Your task to perform on an android device: Search for "dell alienware" on costco.com, select the first entry, and add it to the cart. Image 0: 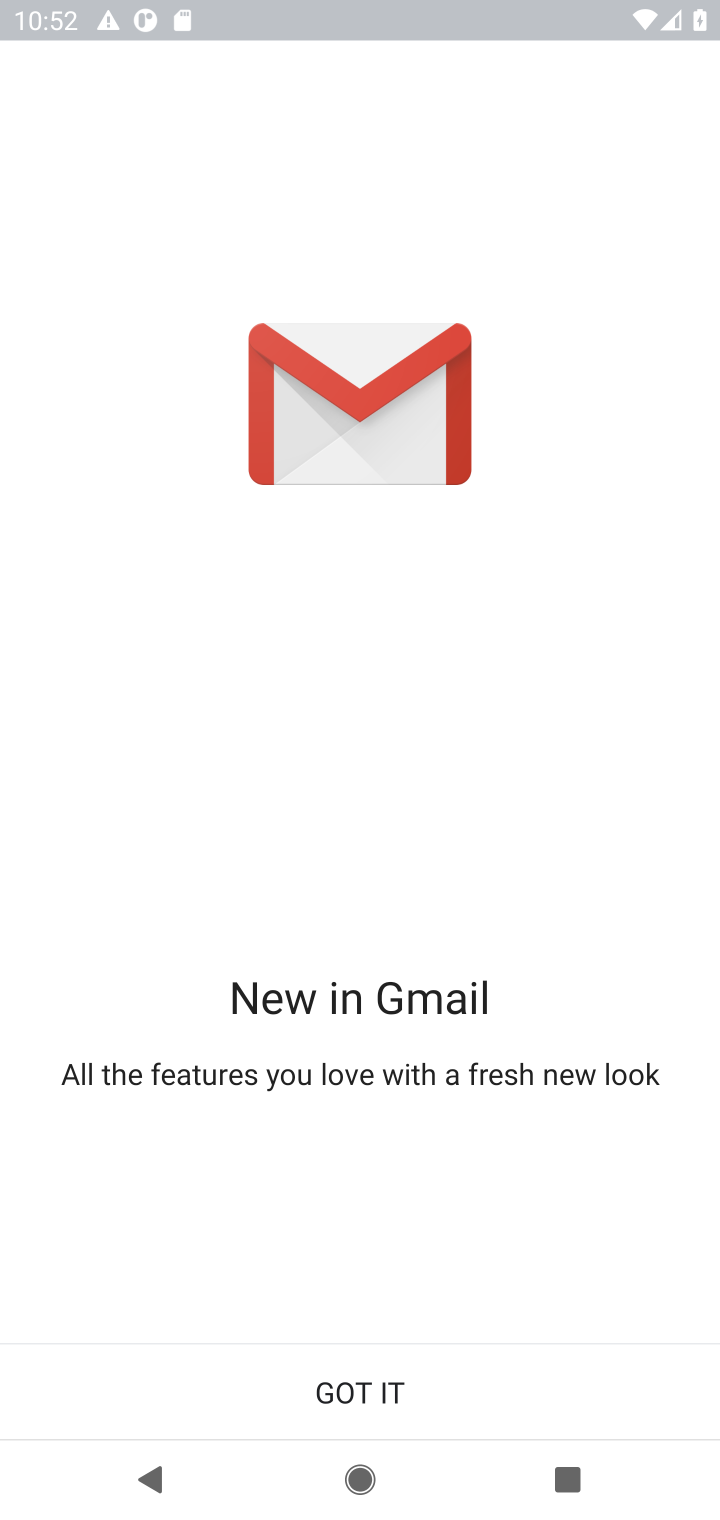
Step 0: press home button
Your task to perform on an android device: Search for "dell alienware" on costco.com, select the first entry, and add it to the cart. Image 1: 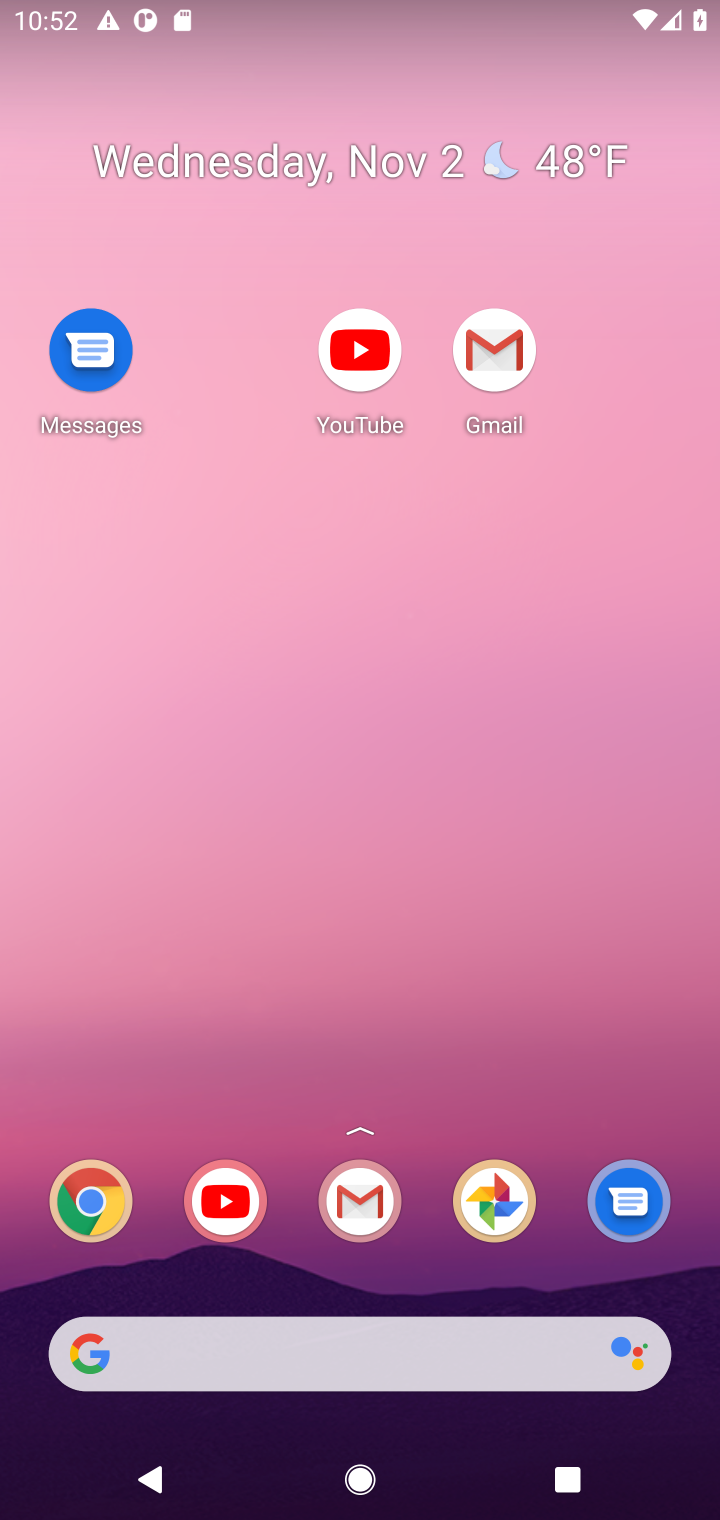
Step 1: drag from (293, 1018) to (317, 344)
Your task to perform on an android device: Search for "dell alienware" on costco.com, select the first entry, and add it to the cart. Image 2: 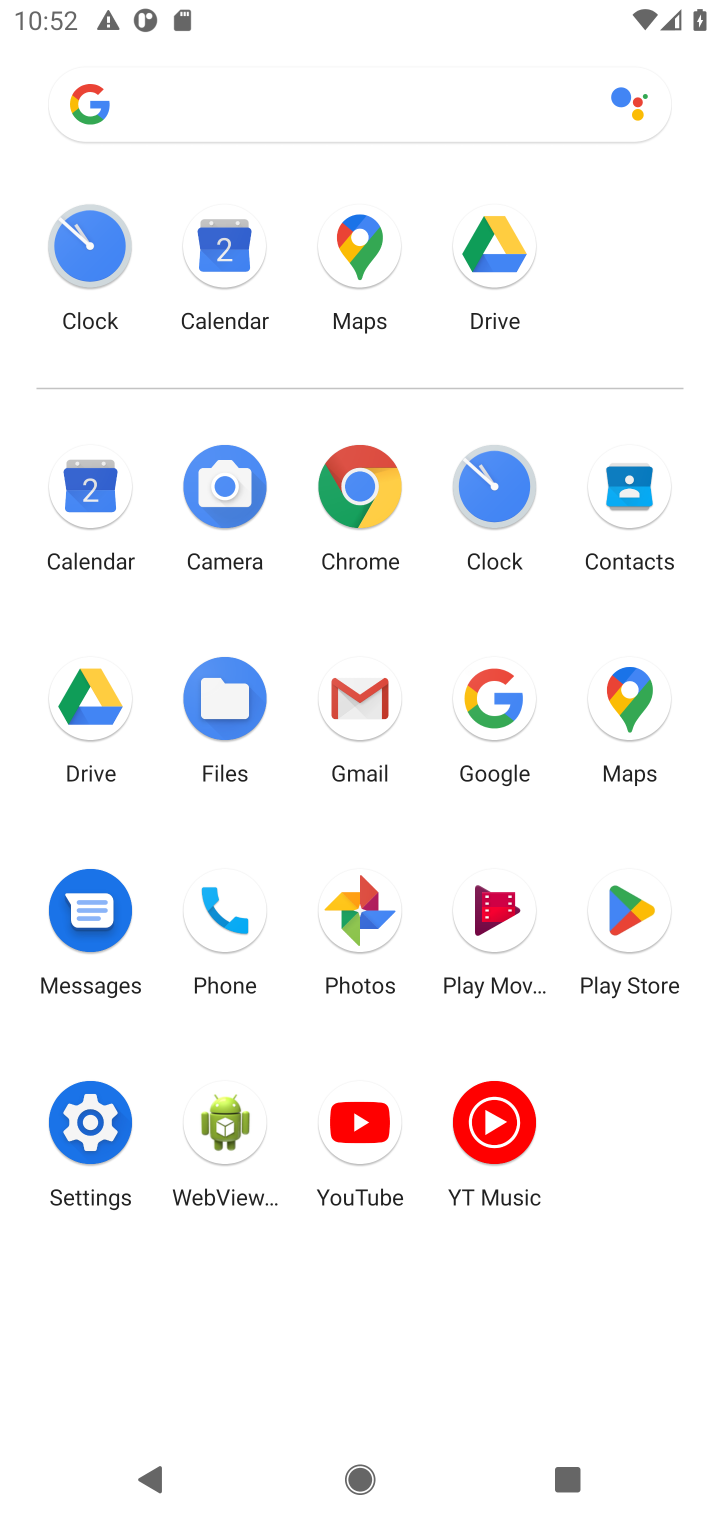
Step 2: click (348, 488)
Your task to perform on an android device: Search for "dell alienware" on costco.com, select the first entry, and add it to the cart. Image 3: 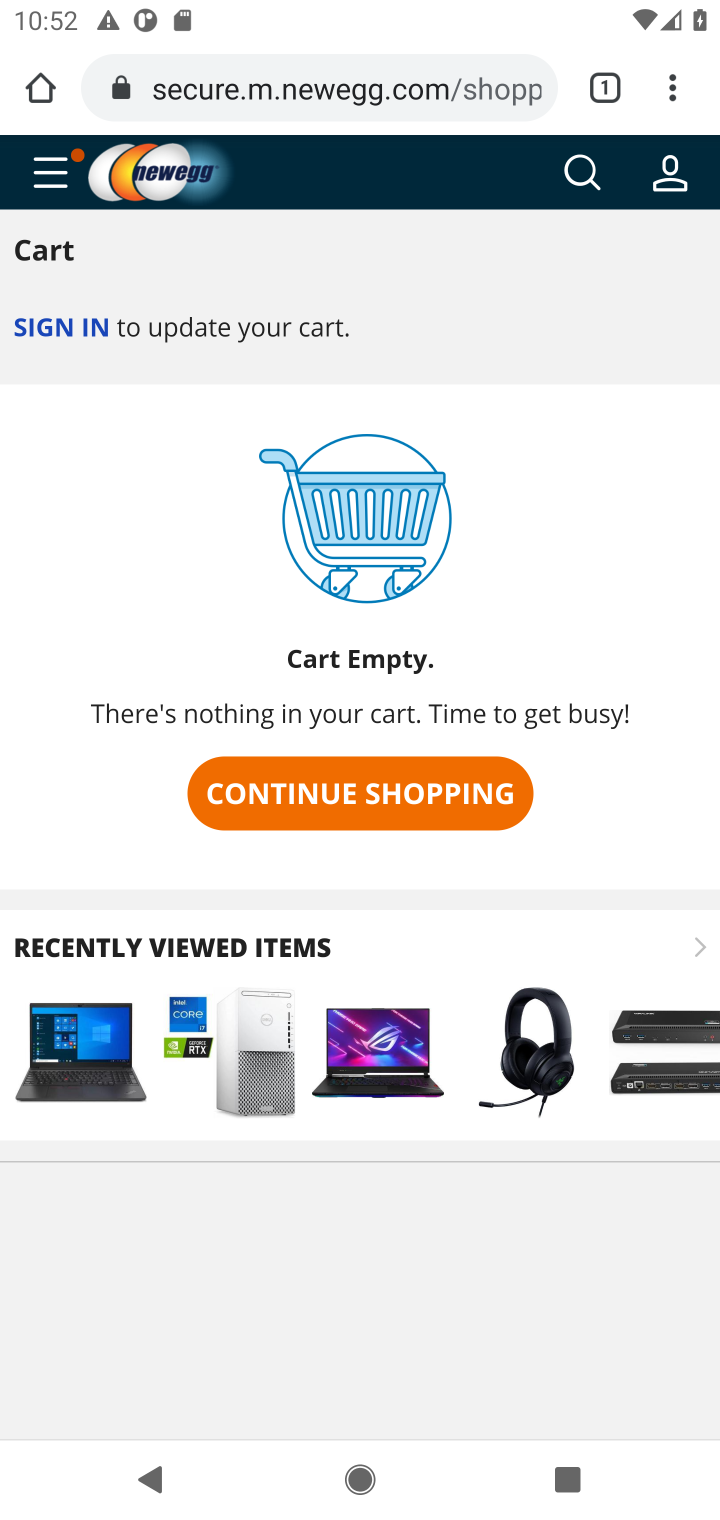
Step 3: click (384, 80)
Your task to perform on an android device: Search for "dell alienware" on costco.com, select the first entry, and add it to the cart. Image 4: 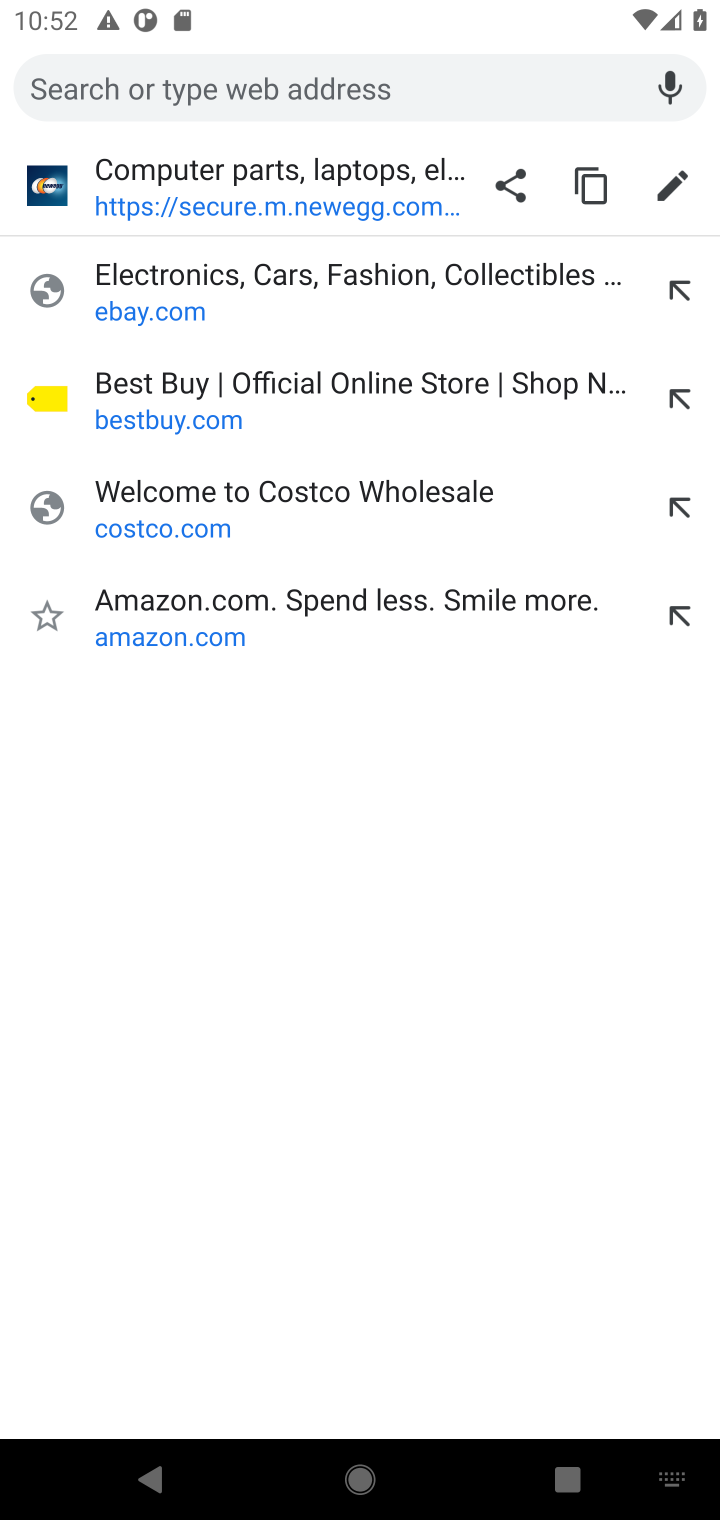
Step 4: type "costco.com"
Your task to perform on an android device: Search for "dell alienware" on costco.com, select the first entry, and add it to the cart. Image 5: 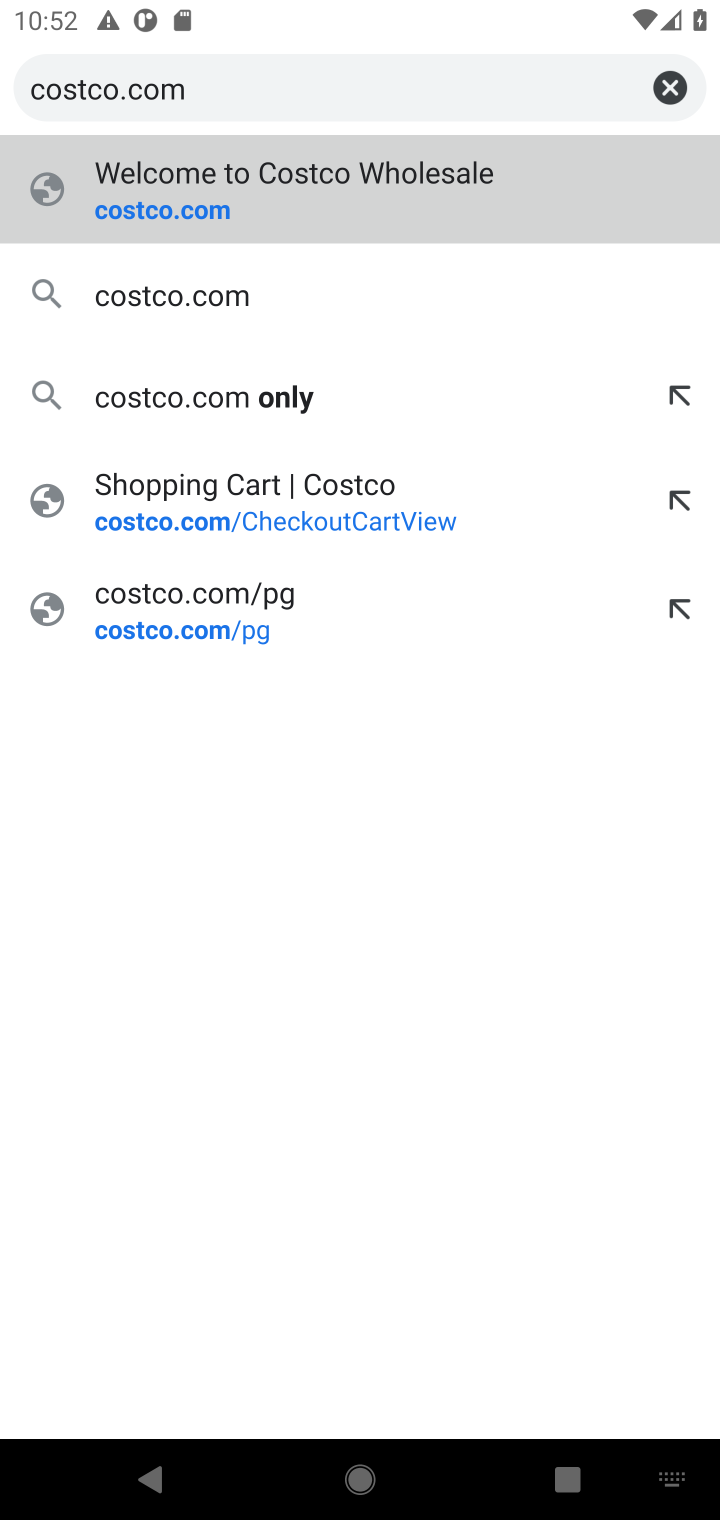
Step 5: press enter
Your task to perform on an android device: Search for "dell alienware" on costco.com, select the first entry, and add it to the cart. Image 6: 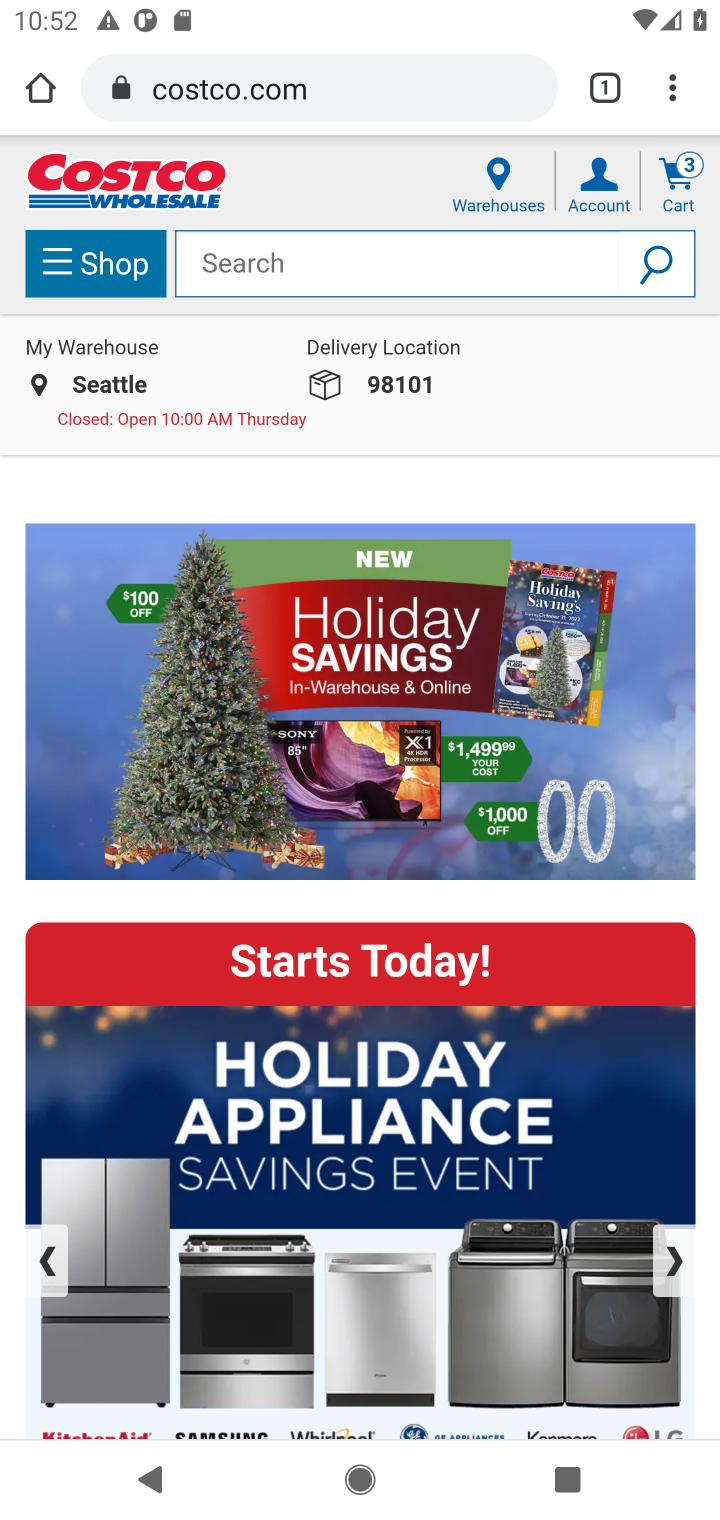
Step 6: click (477, 270)
Your task to perform on an android device: Search for "dell alienware" on costco.com, select the first entry, and add it to the cart. Image 7: 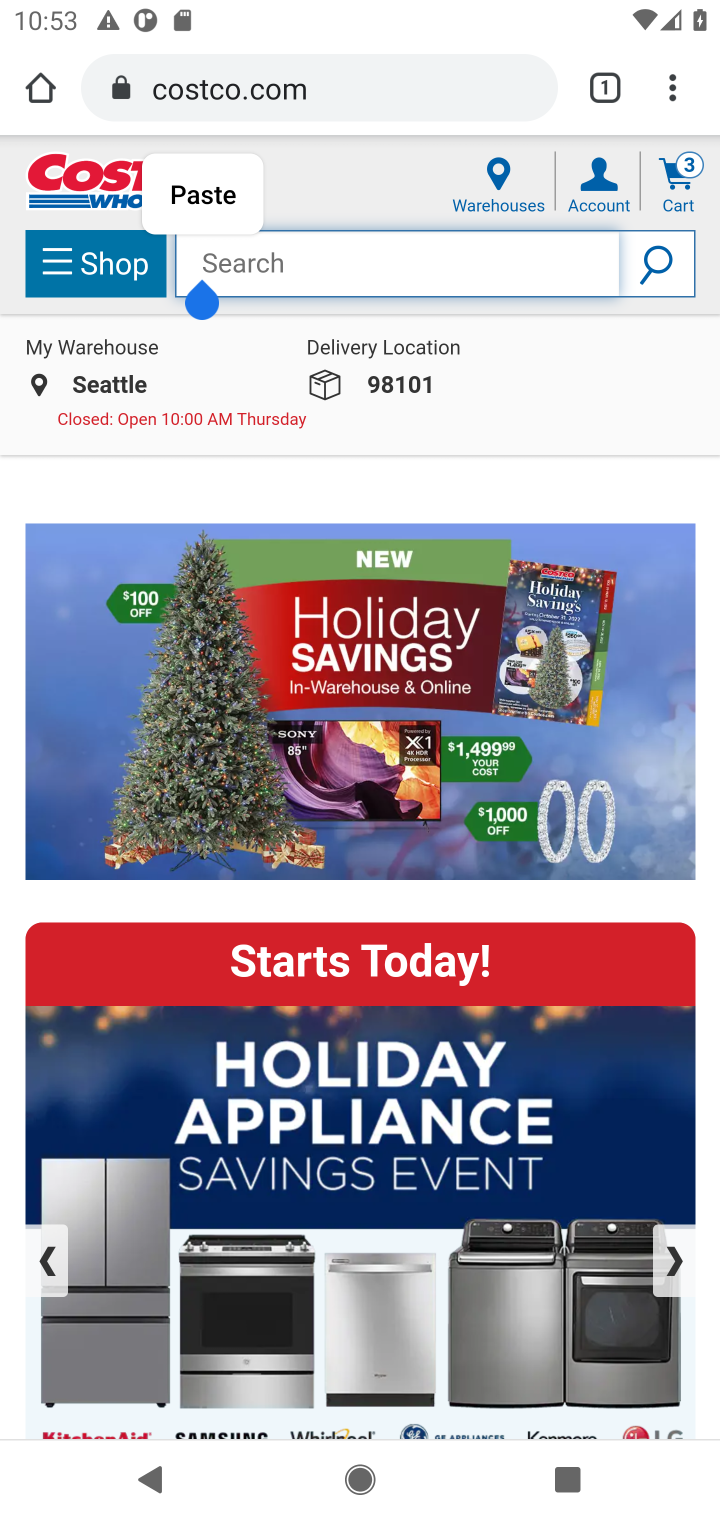
Step 7: click (500, 284)
Your task to perform on an android device: Search for "dell alienware" on costco.com, select the first entry, and add it to the cart. Image 8: 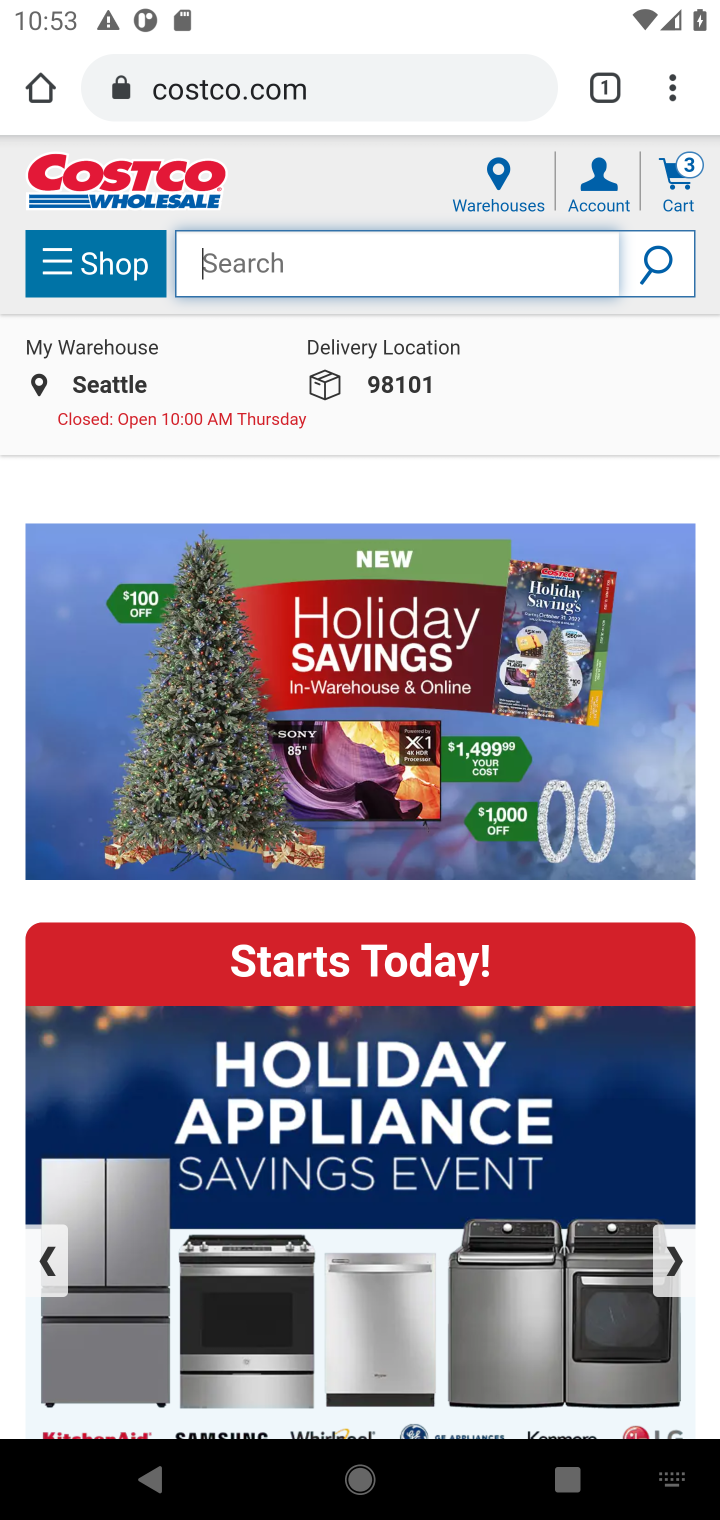
Step 8: type "dell alienware"
Your task to perform on an android device: Search for "dell alienware" on costco.com, select the first entry, and add it to the cart. Image 9: 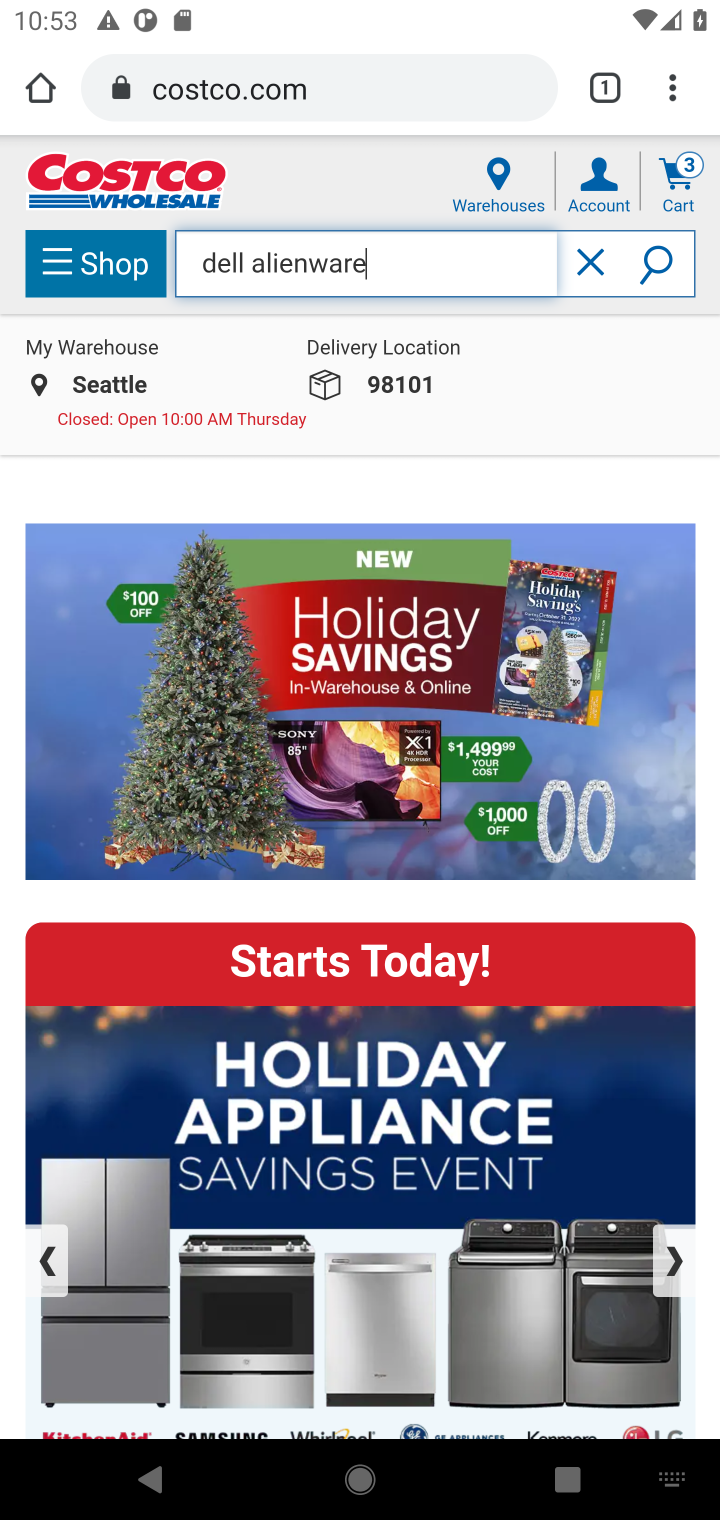
Step 9: press enter
Your task to perform on an android device: Search for "dell alienware" on costco.com, select the first entry, and add it to the cart. Image 10: 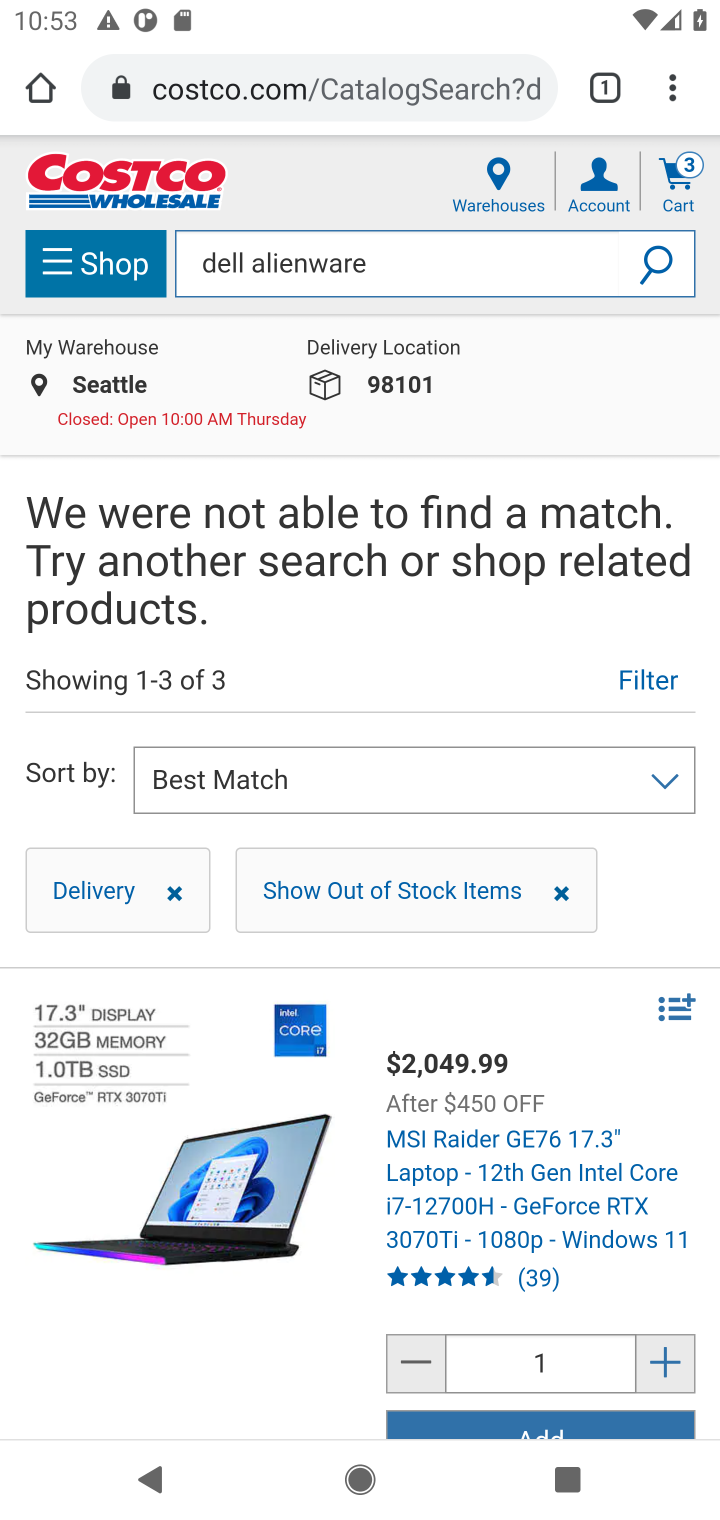
Step 10: task complete